Your task to perform on an android device: Open CNN.com Image 0: 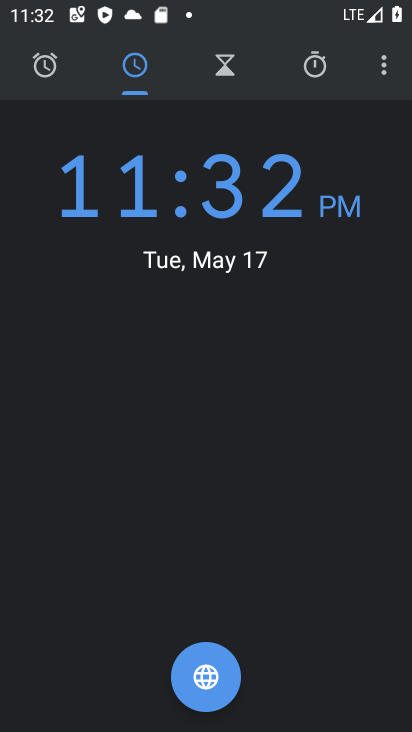
Step 0: press home button
Your task to perform on an android device: Open CNN.com Image 1: 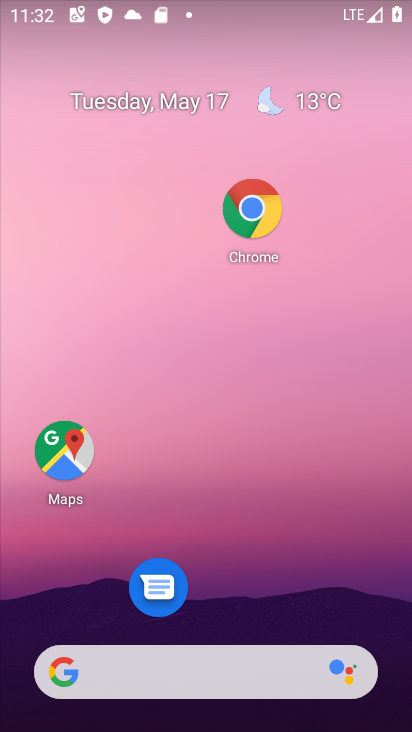
Step 1: click (246, 208)
Your task to perform on an android device: Open CNN.com Image 2: 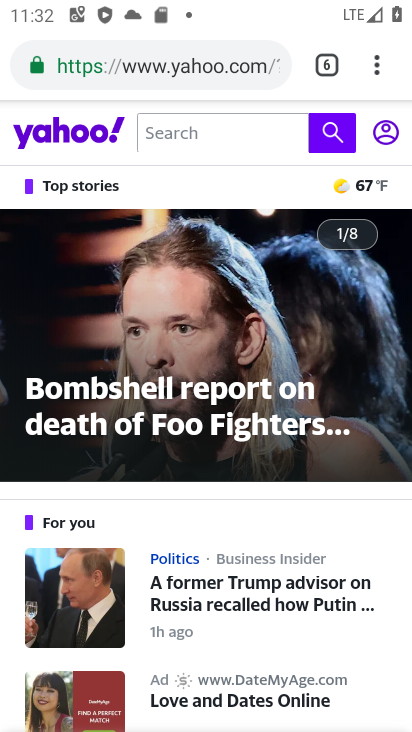
Step 2: click (328, 61)
Your task to perform on an android device: Open CNN.com Image 3: 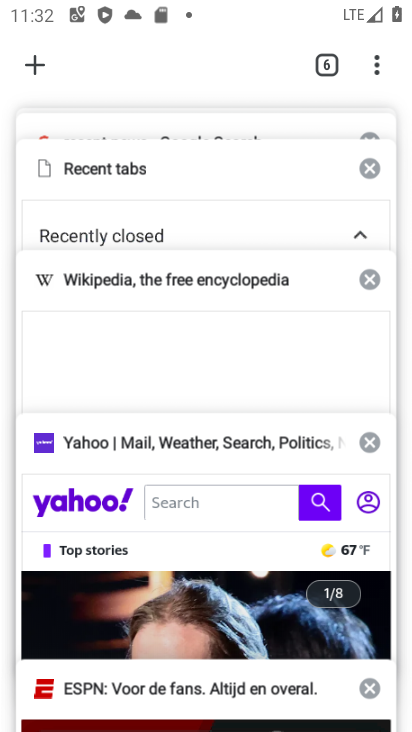
Step 3: drag from (209, 199) to (220, 562)
Your task to perform on an android device: Open CNN.com Image 4: 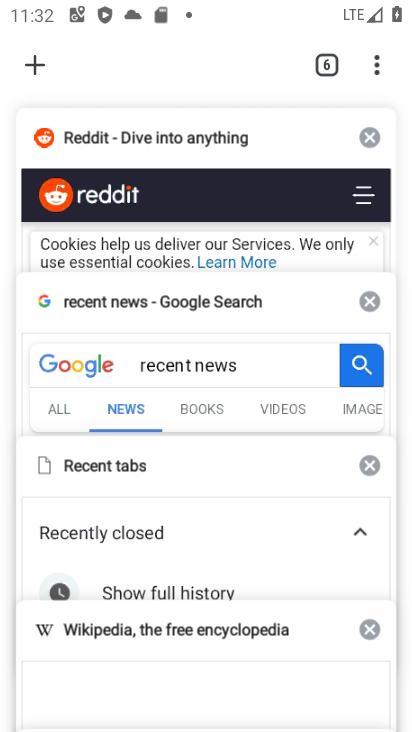
Step 4: drag from (201, 176) to (219, 608)
Your task to perform on an android device: Open CNN.com Image 5: 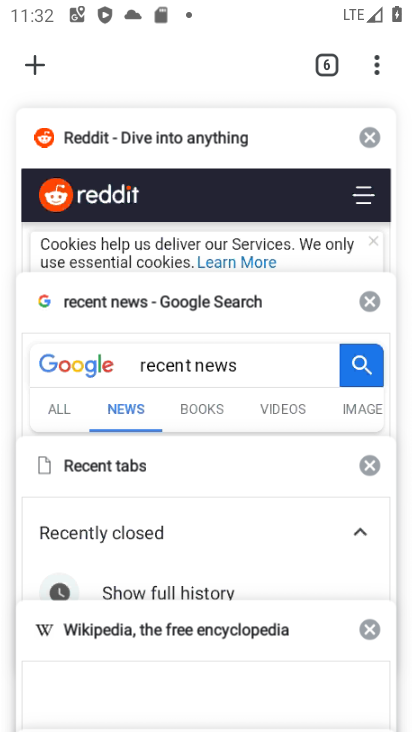
Step 5: click (29, 64)
Your task to perform on an android device: Open CNN.com Image 6: 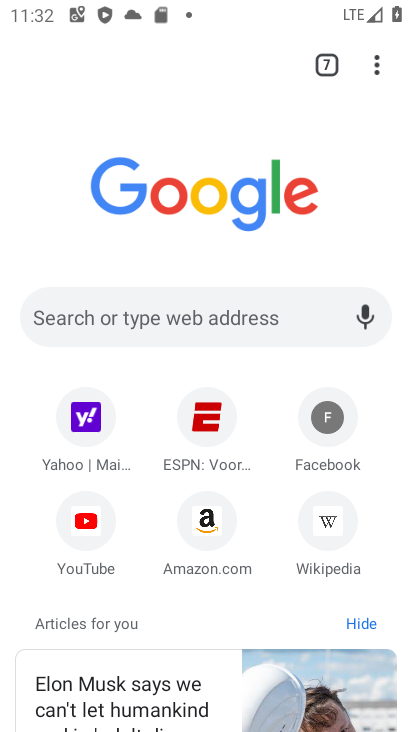
Step 6: click (116, 303)
Your task to perform on an android device: Open CNN.com Image 7: 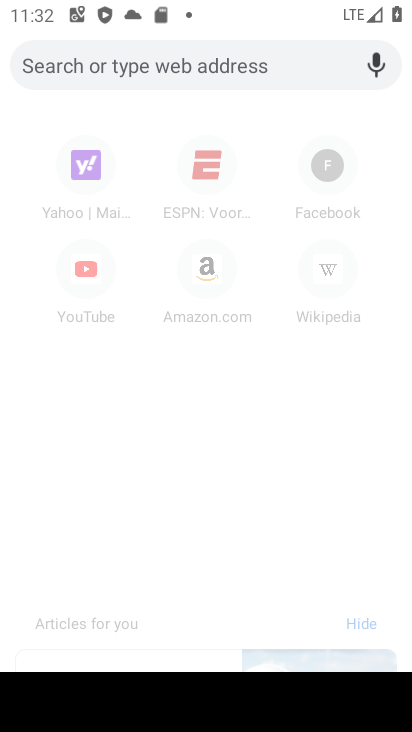
Step 7: type "CNN.com"
Your task to perform on an android device: Open CNN.com Image 8: 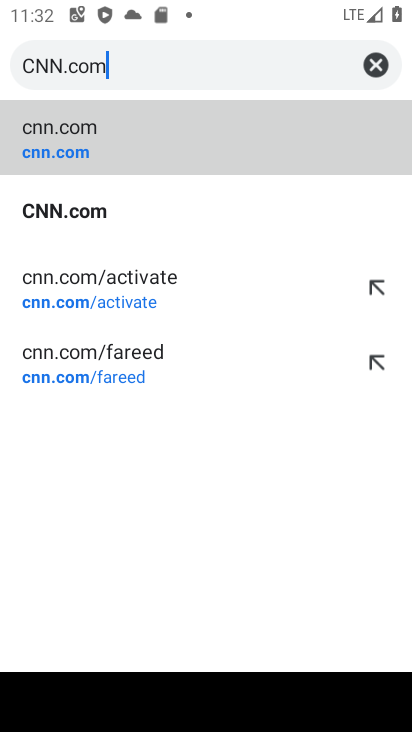
Step 8: click (216, 130)
Your task to perform on an android device: Open CNN.com Image 9: 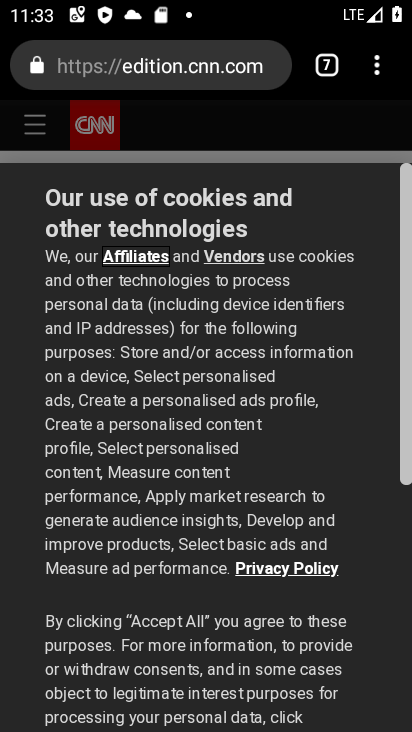
Step 9: task complete